Your task to perform on an android device: Open calendar and show me the second week of next month Image 0: 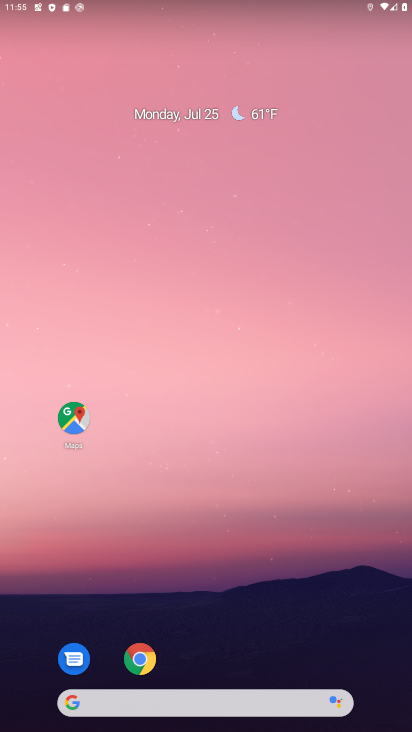
Step 0: drag from (228, 562) to (228, 130)
Your task to perform on an android device: Open calendar and show me the second week of next month Image 1: 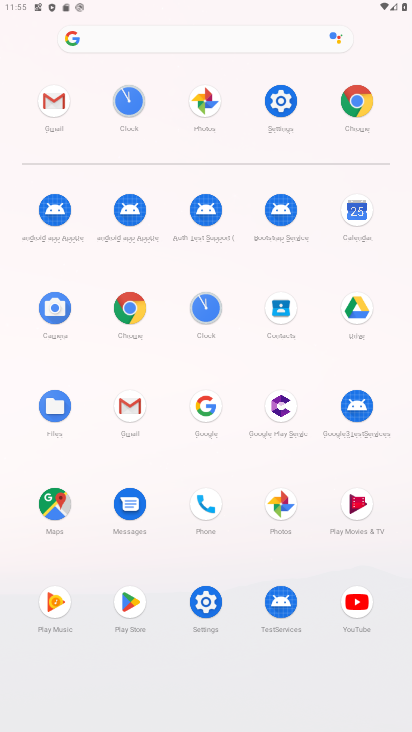
Step 1: click (357, 213)
Your task to perform on an android device: Open calendar and show me the second week of next month Image 2: 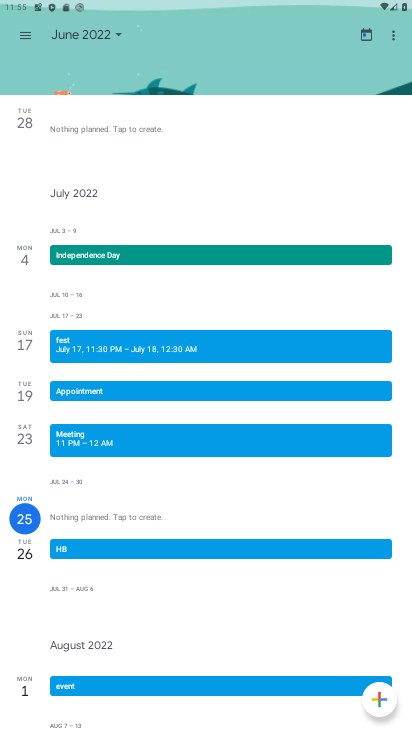
Step 2: click (120, 31)
Your task to perform on an android device: Open calendar and show me the second week of next month Image 3: 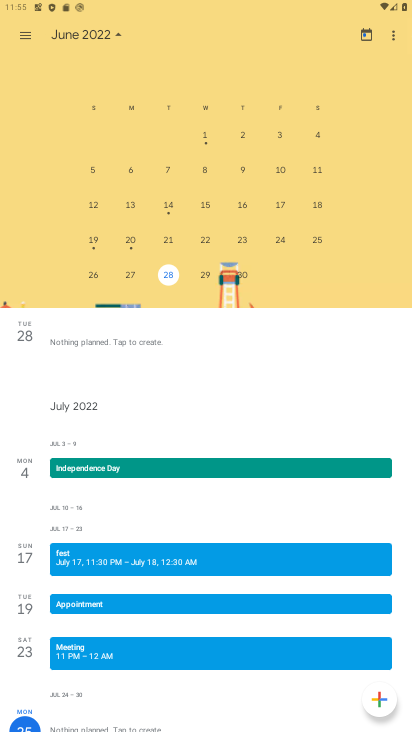
Step 3: drag from (298, 212) to (143, 196)
Your task to perform on an android device: Open calendar and show me the second week of next month Image 4: 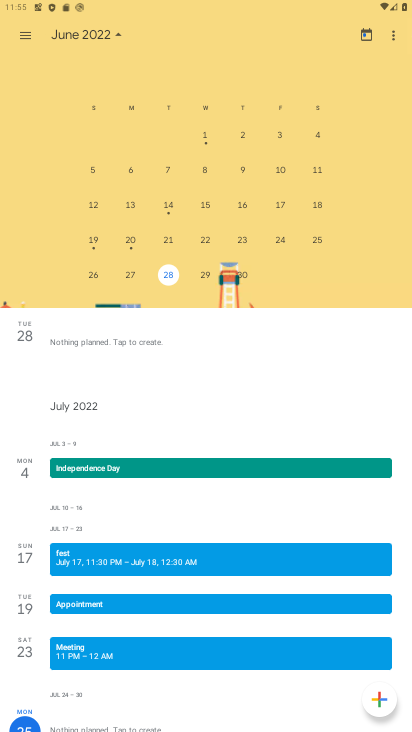
Step 4: drag from (316, 205) to (136, 211)
Your task to perform on an android device: Open calendar and show me the second week of next month Image 5: 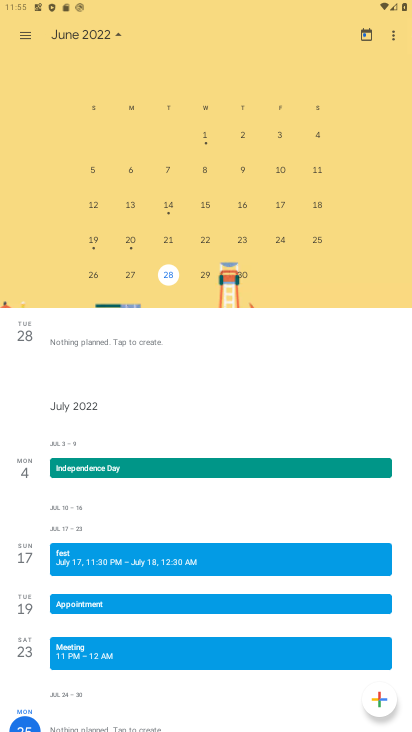
Step 5: drag from (351, 179) to (112, 179)
Your task to perform on an android device: Open calendar and show me the second week of next month Image 6: 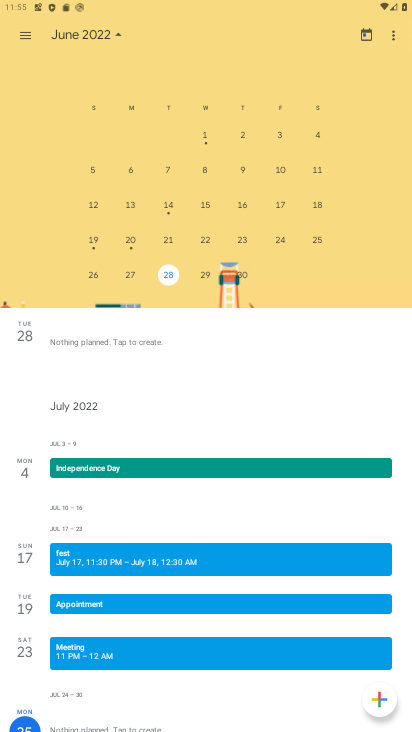
Step 6: drag from (307, 166) to (31, 172)
Your task to perform on an android device: Open calendar and show me the second week of next month Image 7: 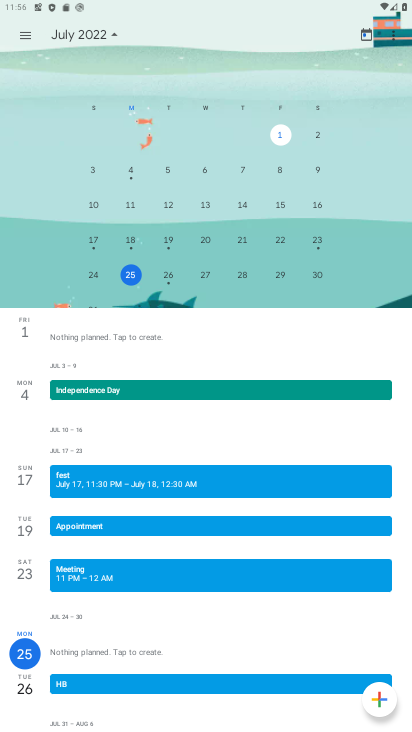
Step 7: drag from (300, 203) to (3, 219)
Your task to perform on an android device: Open calendar and show me the second week of next month Image 8: 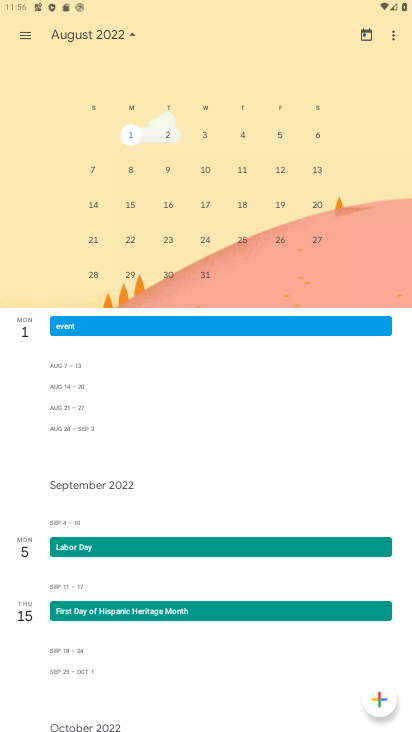
Step 8: click (131, 165)
Your task to perform on an android device: Open calendar and show me the second week of next month Image 9: 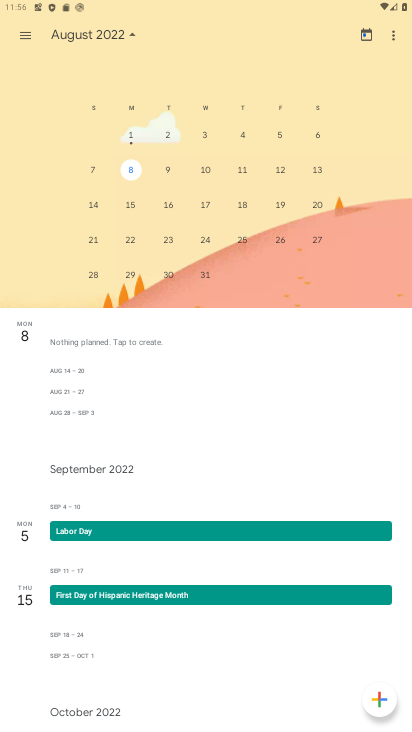
Step 9: click (27, 33)
Your task to perform on an android device: Open calendar and show me the second week of next month Image 10: 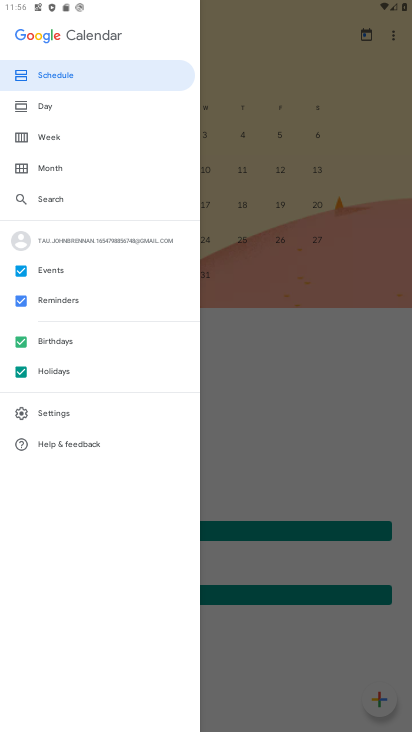
Step 10: click (51, 135)
Your task to perform on an android device: Open calendar and show me the second week of next month Image 11: 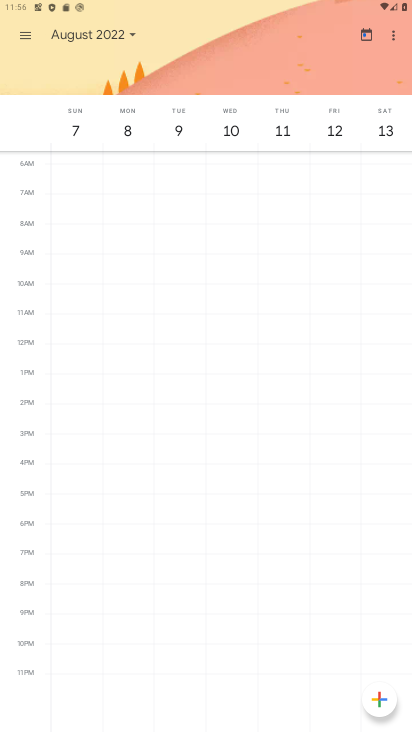
Step 11: task complete